Your task to perform on an android device: Go to wifi settings Image 0: 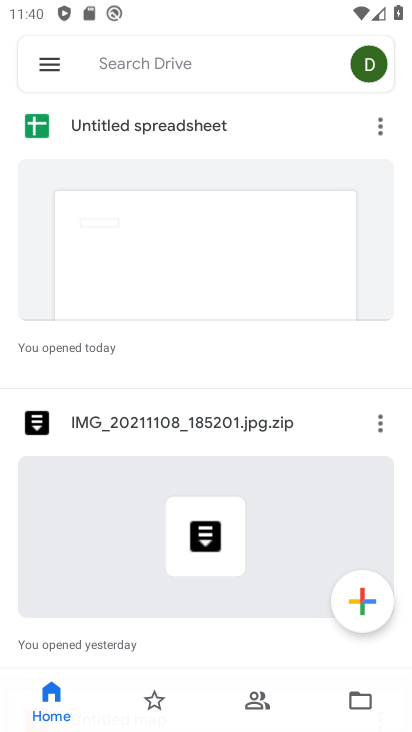
Step 0: press home button
Your task to perform on an android device: Go to wifi settings Image 1: 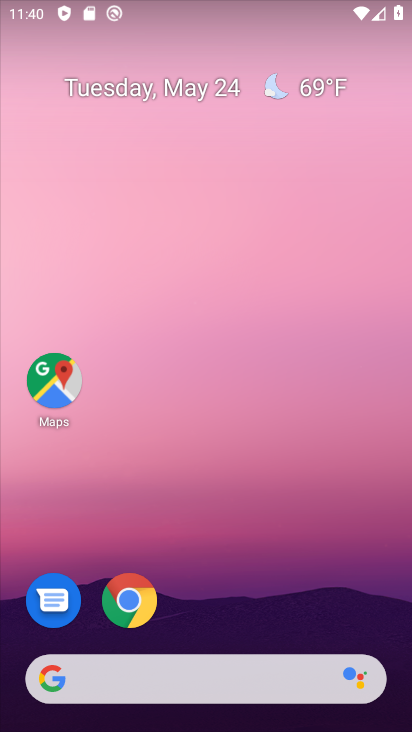
Step 1: drag from (372, 611) to (392, 158)
Your task to perform on an android device: Go to wifi settings Image 2: 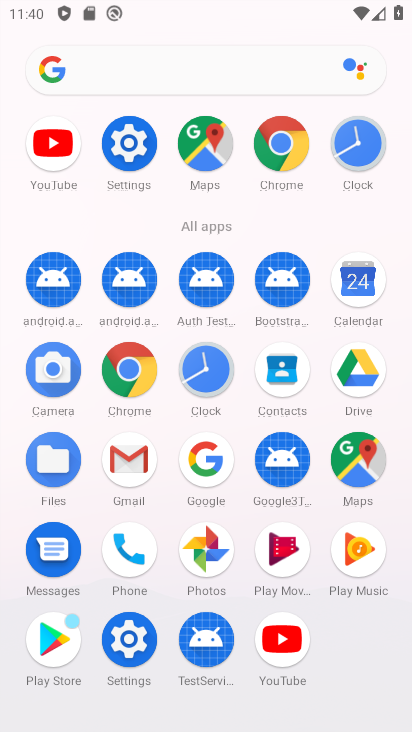
Step 2: click (128, 160)
Your task to perform on an android device: Go to wifi settings Image 3: 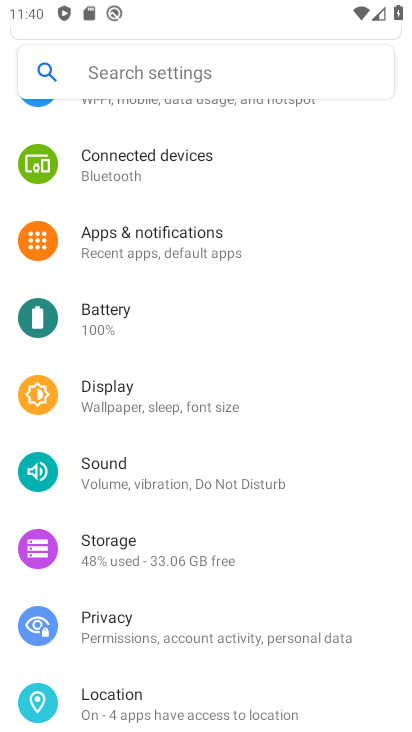
Step 3: drag from (358, 550) to (370, 399)
Your task to perform on an android device: Go to wifi settings Image 4: 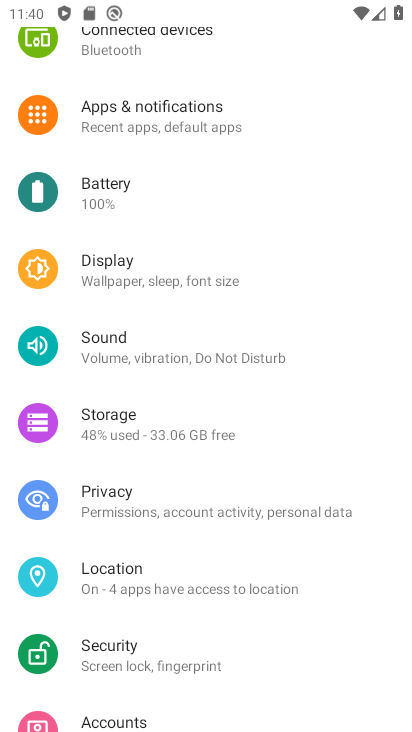
Step 4: drag from (360, 606) to (376, 443)
Your task to perform on an android device: Go to wifi settings Image 5: 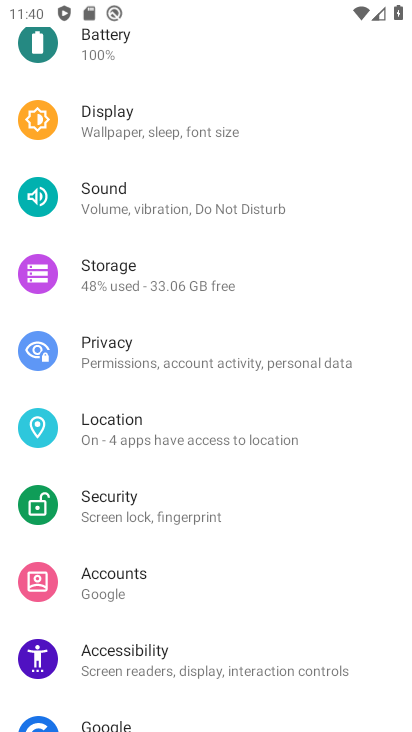
Step 5: drag from (359, 595) to (336, 432)
Your task to perform on an android device: Go to wifi settings Image 6: 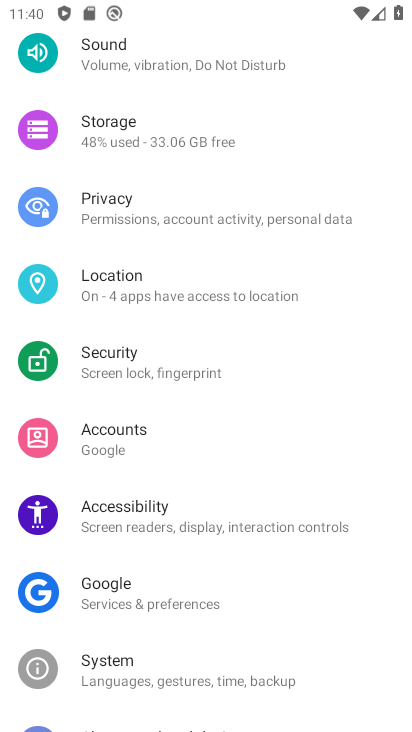
Step 6: drag from (373, 531) to (355, 391)
Your task to perform on an android device: Go to wifi settings Image 7: 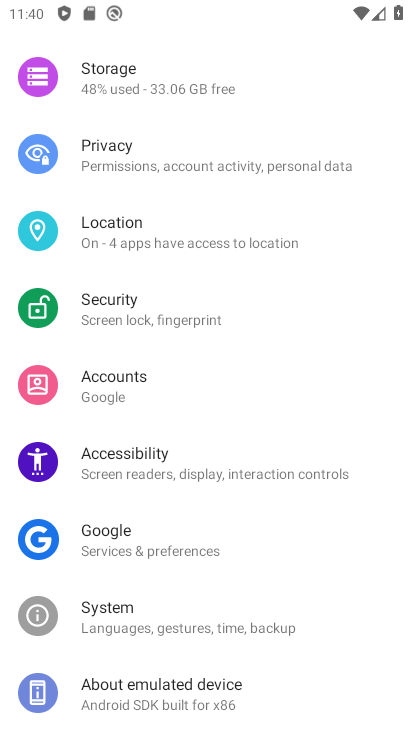
Step 7: drag from (338, 314) to (325, 446)
Your task to perform on an android device: Go to wifi settings Image 8: 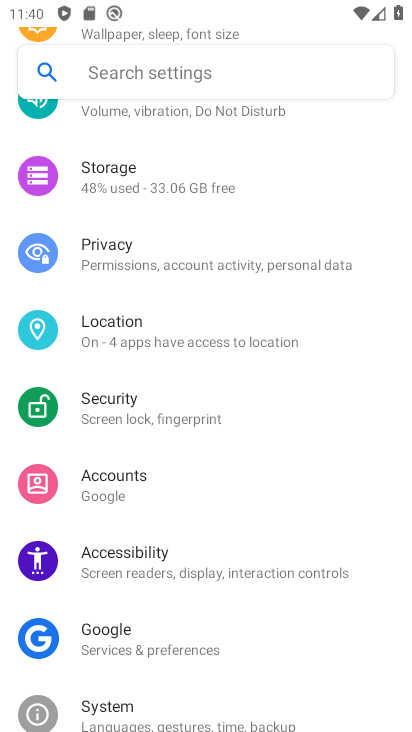
Step 8: drag from (376, 251) to (359, 367)
Your task to perform on an android device: Go to wifi settings Image 9: 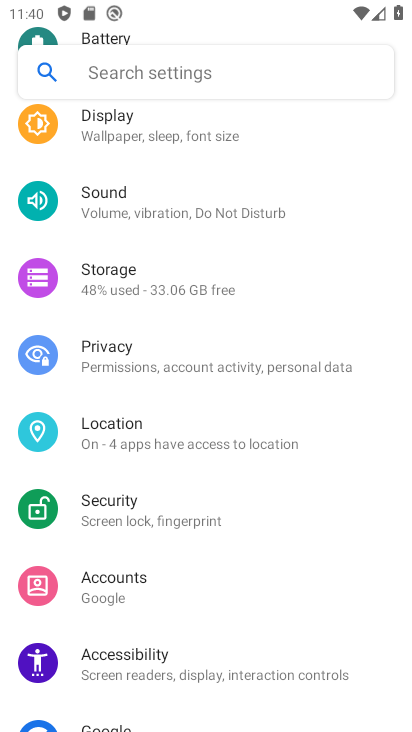
Step 9: drag from (373, 254) to (387, 361)
Your task to perform on an android device: Go to wifi settings Image 10: 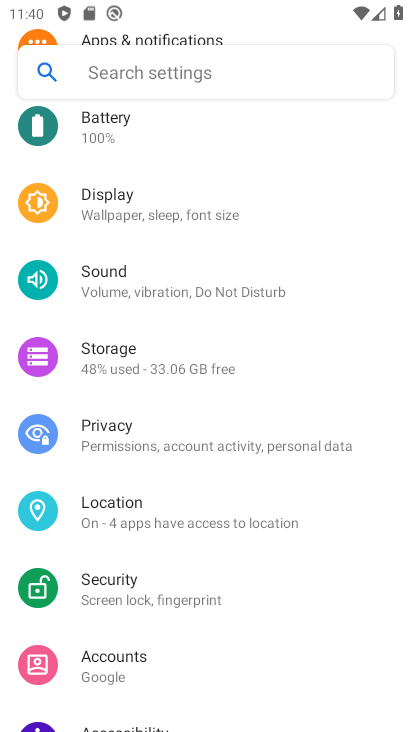
Step 10: drag from (363, 220) to (354, 343)
Your task to perform on an android device: Go to wifi settings Image 11: 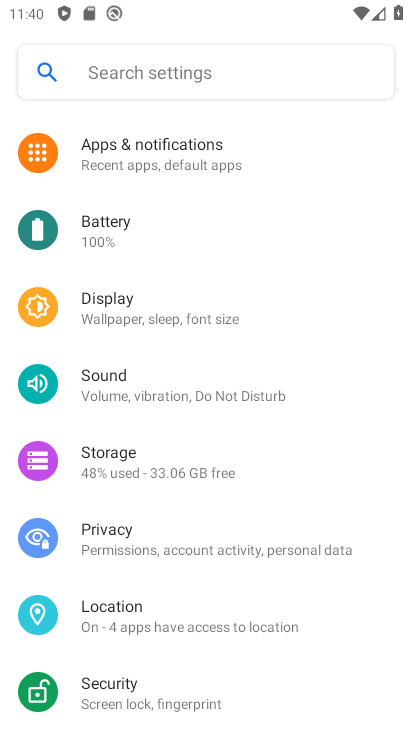
Step 11: drag from (354, 237) to (355, 340)
Your task to perform on an android device: Go to wifi settings Image 12: 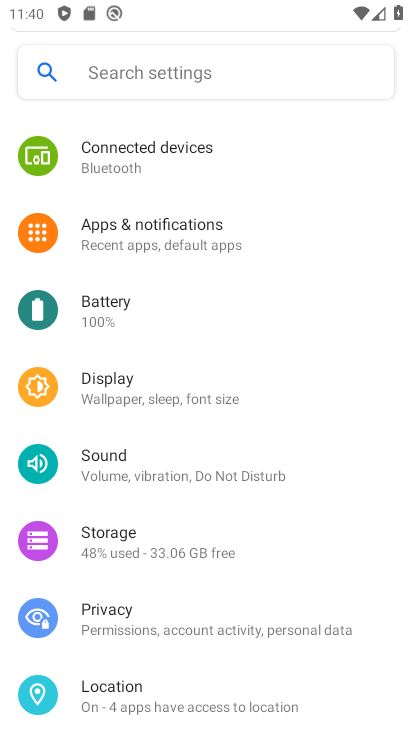
Step 12: drag from (351, 245) to (347, 363)
Your task to perform on an android device: Go to wifi settings Image 13: 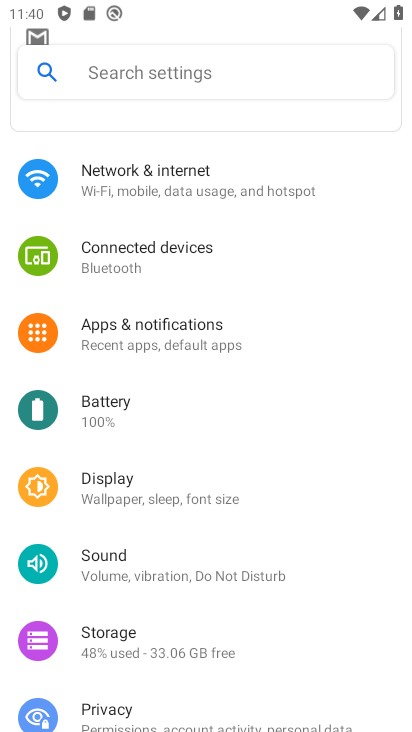
Step 13: drag from (344, 241) to (339, 350)
Your task to perform on an android device: Go to wifi settings Image 14: 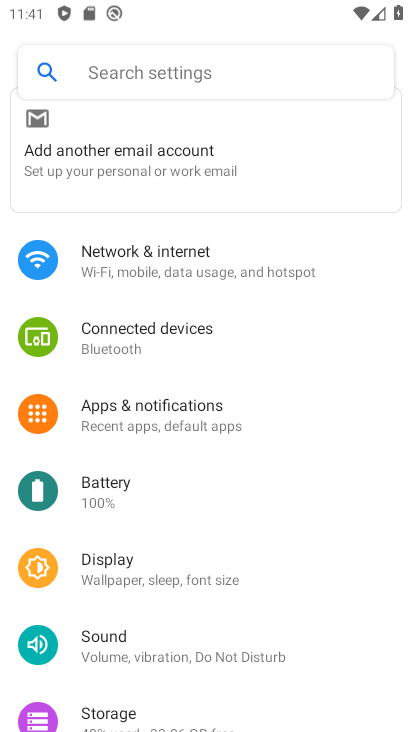
Step 14: click (298, 266)
Your task to perform on an android device: Go to wifi settings Image 15: 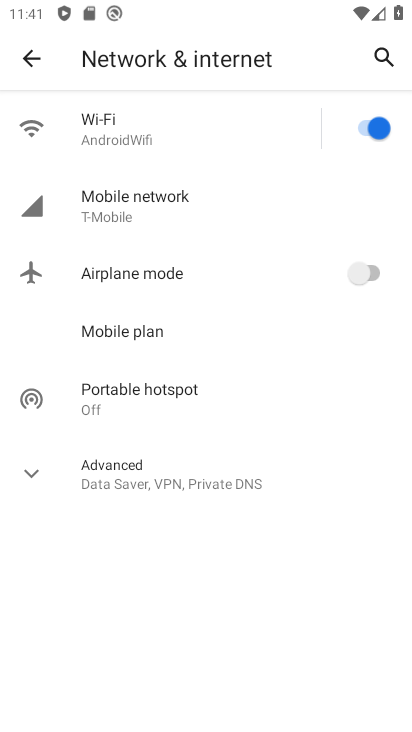
Step 15: click (173, 138)
Your task to perform on an android device: Go to wifi settings Image 16: 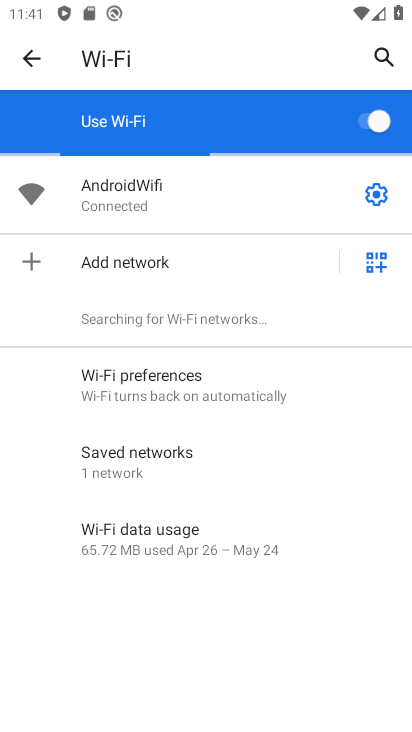
Step 16: task complete